Your task to perform on an android device: turn vacation reply on in the gmail app Image 0: 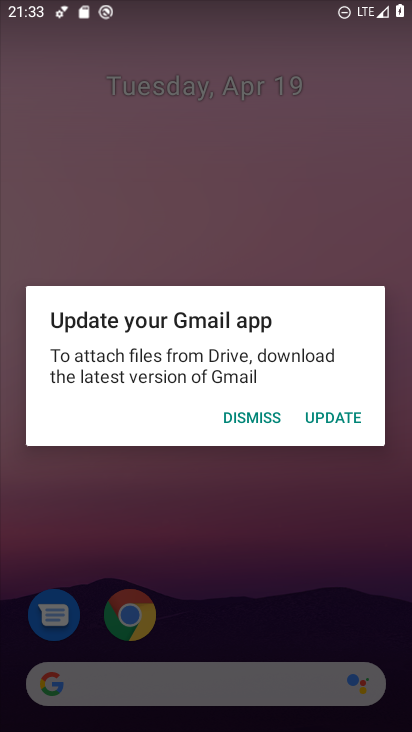
Step 0: press home button
Your task to perform on an android device: turn vacation reply on in the gmail app Image 1: 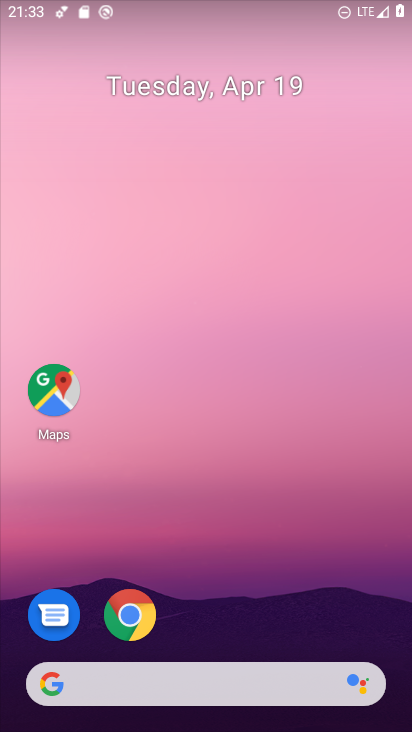
Step 1: drag from (321, 623) to (230, 34)
Your task to perform on an android device: turn vacation reply on in the gmail app Image 2: 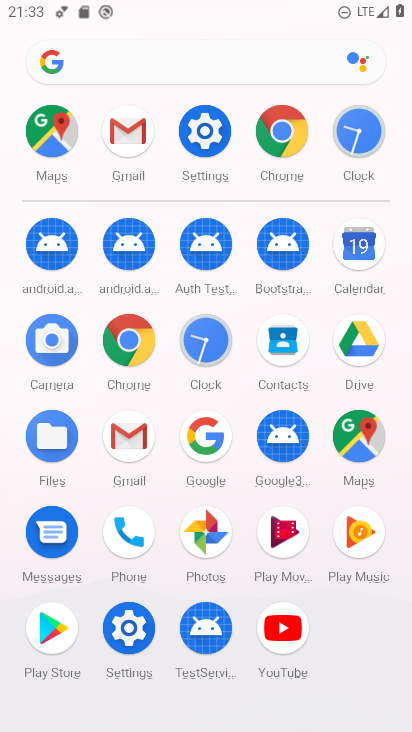
Step 2: click (117, 142)
Your task to perform on an android device: turn vacation reply on in the gmail app Image 3: 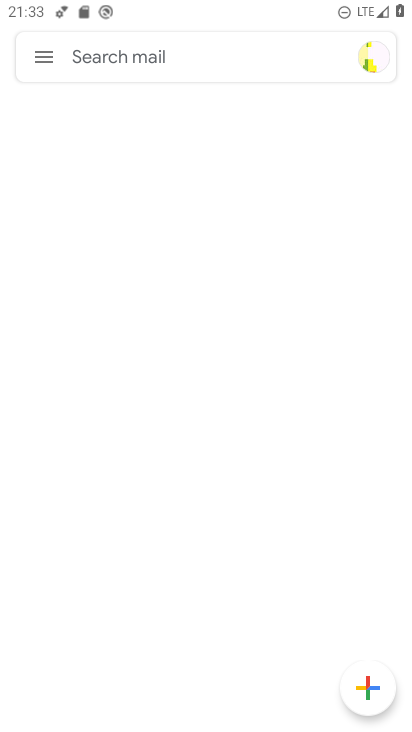
Step 3: click (49, 52)
Your task to perform on an android device: turn vacation reply on in the gmail app Image 4: 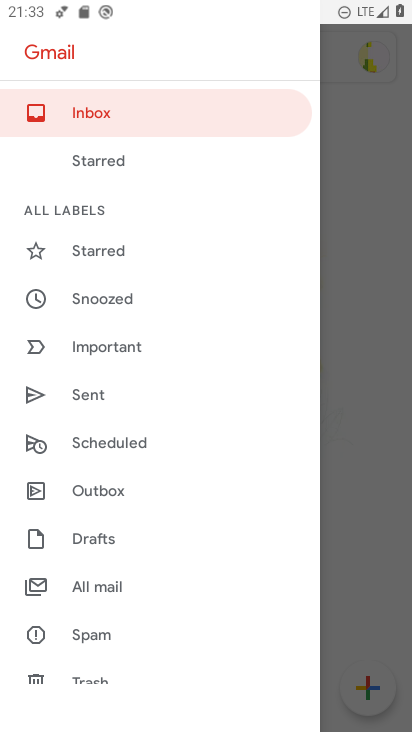
Step 4: drag from (92, 643) to (153, 185)
Your task to perform on an android device: turn vacation reply on in the gmail app Image 5: 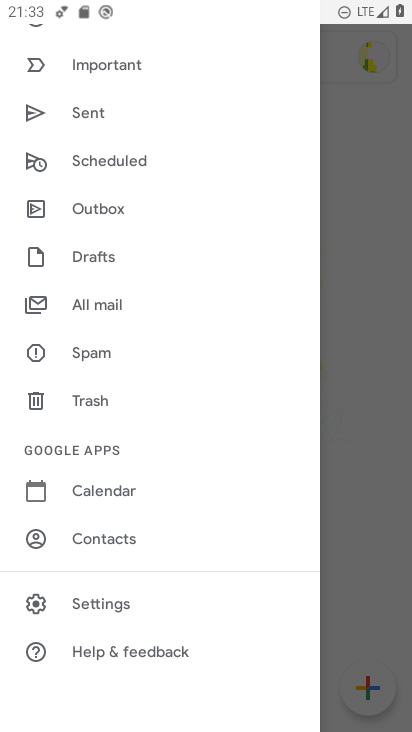
Step 5: click (76, 597)
Your task to perform on an android device: turn vacation reply on in the gmail app Image 6: 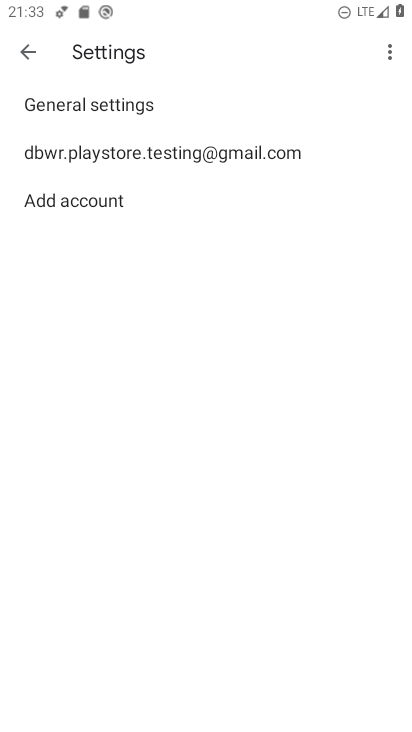
Step 6: click (223, 164)
Your task to perform on an android device: turn vacation reply on in the gmail app Image 7: 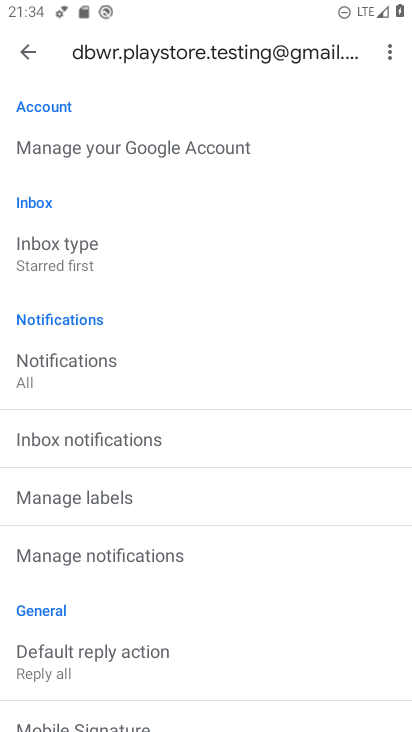
Step 7: drag from (153, 636) to (175, 80)
Your task to perform on an android device: turn vacation reply on in the gmail app Image 8: 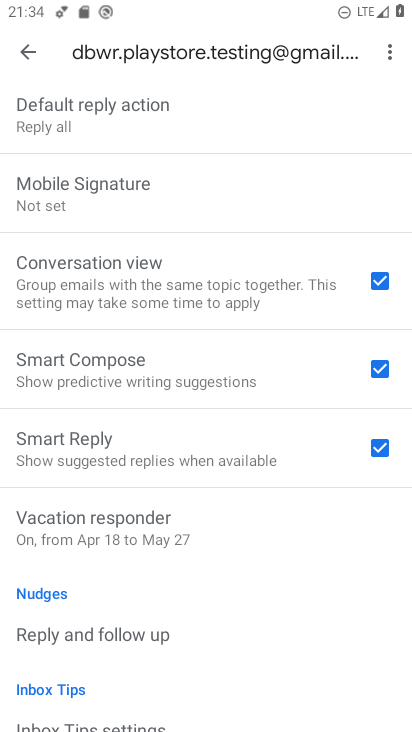
Step 8: click (58, 494)
Your task to perform on an android device: turn vacation reply on in the gmail app Image 9: 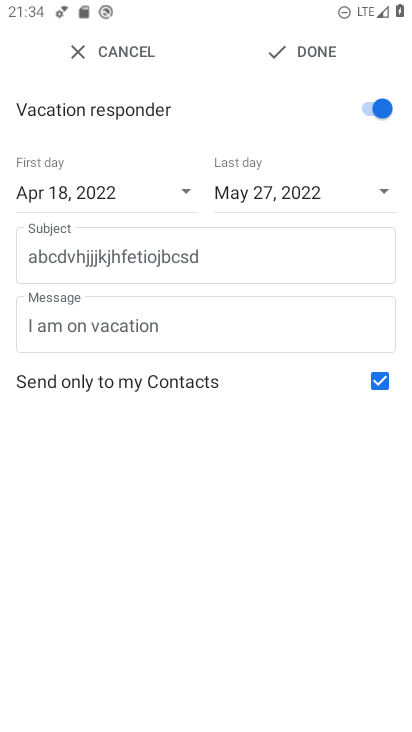
Step 9: click (325, 55)
Your task to perform on an android device: turn vacation reply on in the gmail app Image 10: 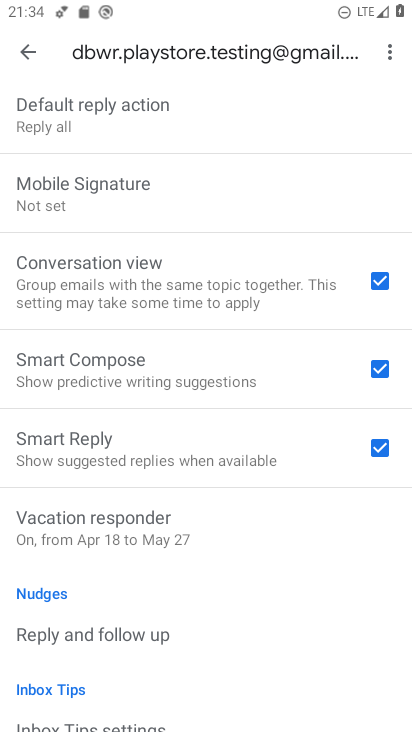
Step 10: task complete